Your task to perform on an android device: Open the calendar and show me this week's events? Image 0: 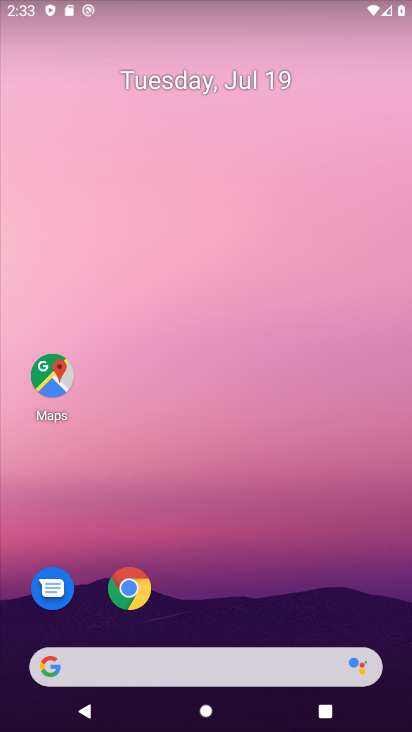
Step 0: drag from (219, 604) to (260, 129)
Your task to perform on an android device: Open the calendar and show me this week's events? Image 1: 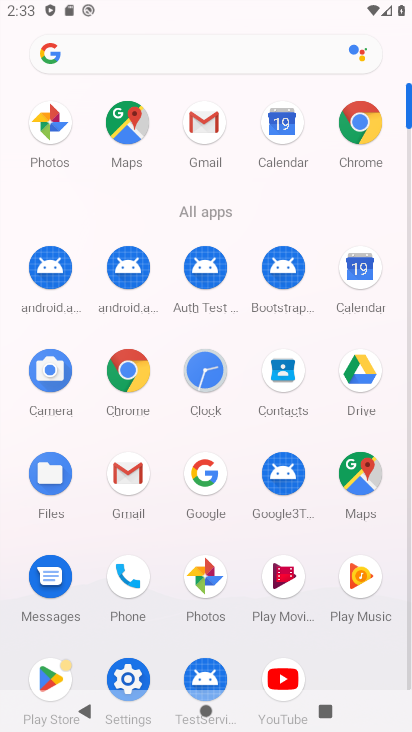
Step 1: click (363, 266)
Your task to perform on an android device: Open the calendar and show me this week's events? Image 2: 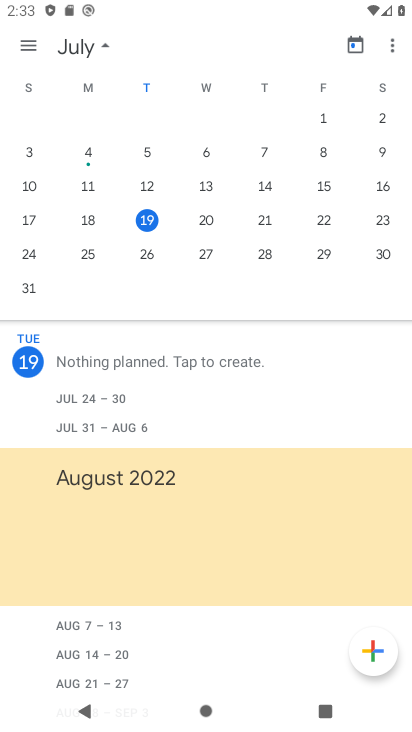
Step 2: click (206, 220)
Your task to perform on an android device: Open the calendar and show me this week's events? Image 3: 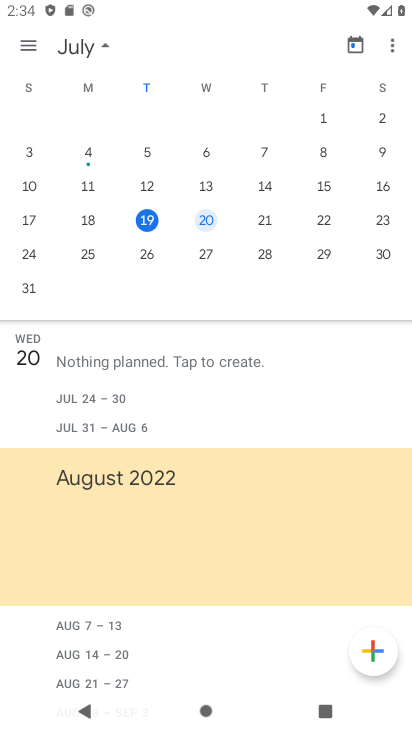
Step 3: task complete